Your task to perform on an android device: change alarm snooze length Image 0: 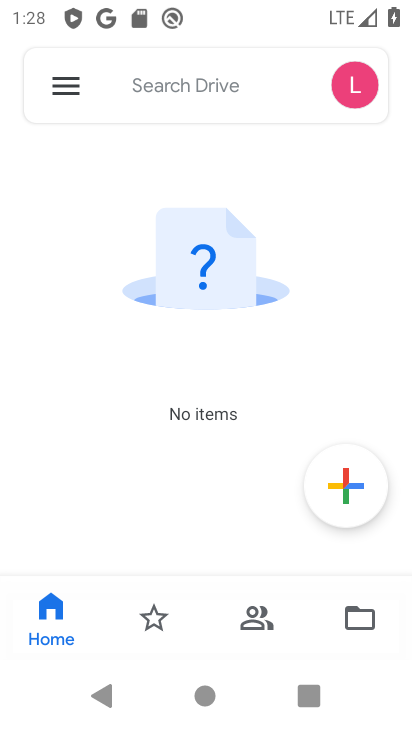
Step 0: press home button
Your task to perform on an android device: change alarm snooze length Image 1: 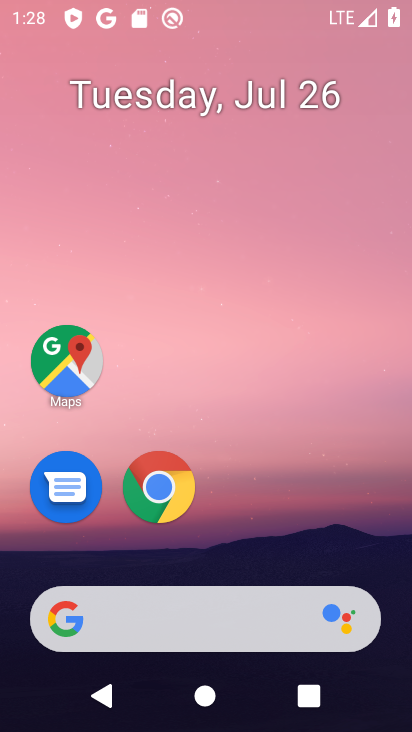
Step 1: drag from (233, 624) to (310, 41)
Your task to perform on an android device: change alarm snooze length Image 2: 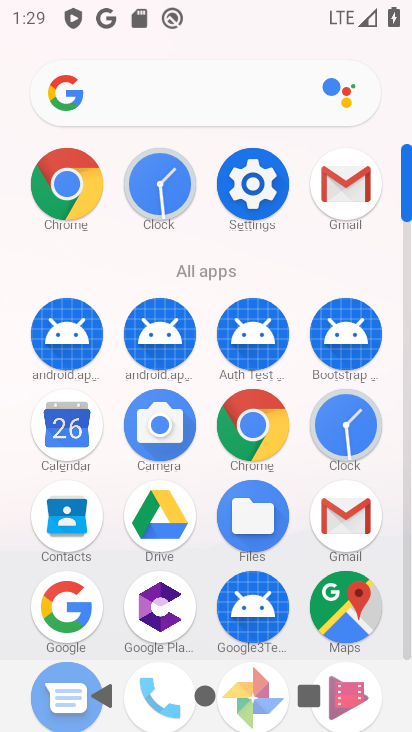
Step 2: click (337, 430)
Your task to perform on an android device: change alarm snooze length Image 3: 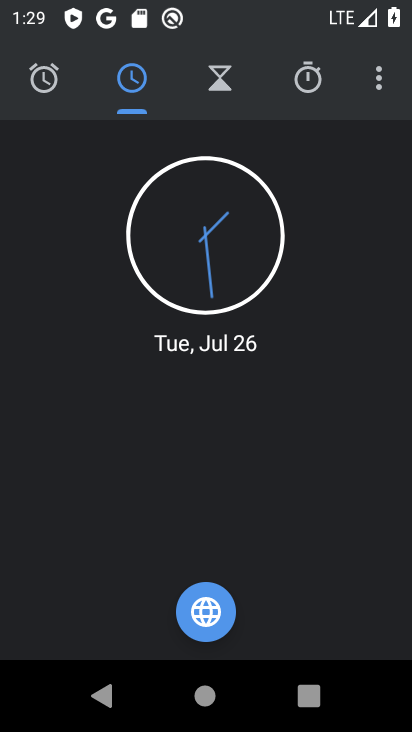
Step 3: click (395, 92)
Your task to perform on an android device: change alarm snooze length Image 4: 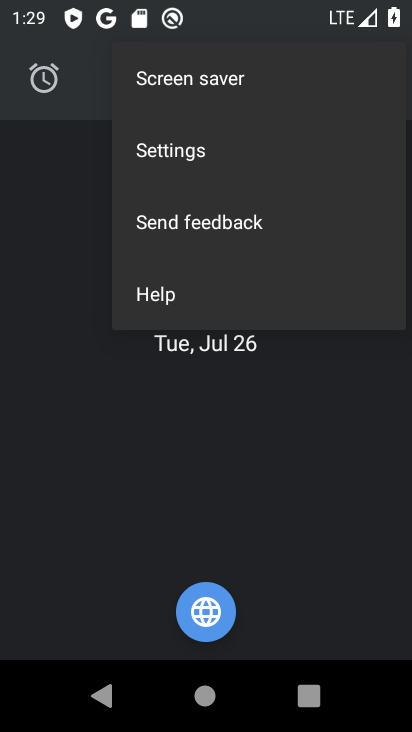
Step 4: click (183, 163)
Your task to perform on an android device: change alarm snooze length Image 5: 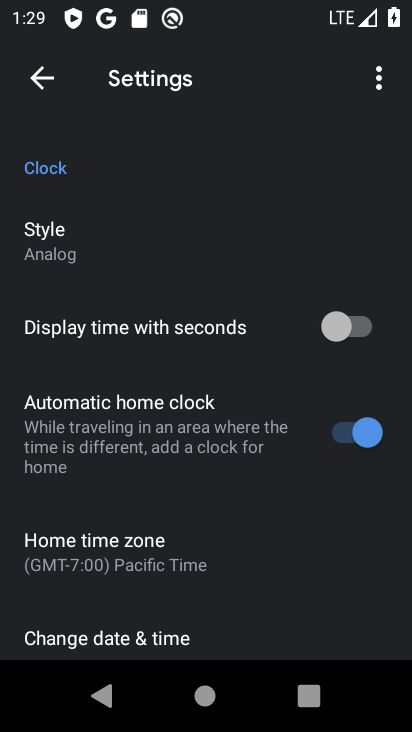
Step 5: drag from (184, 562) to (185, 268)
Your task to perform on an android device: change alarm snooze length Image 6: 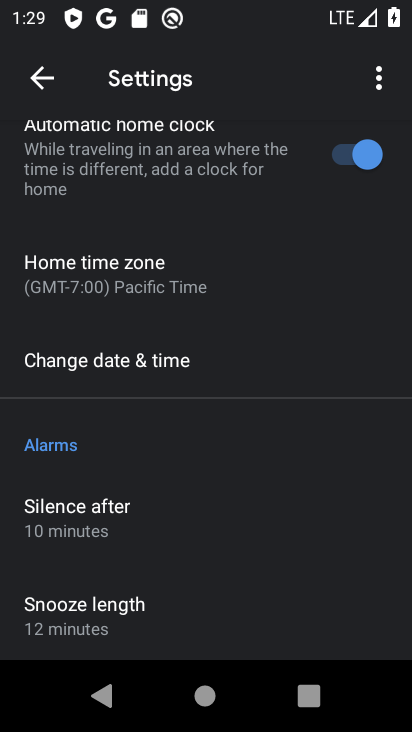
Step 6: click (132, 617)
Your task to perform on an android device: change alarm snooze length Image 7: 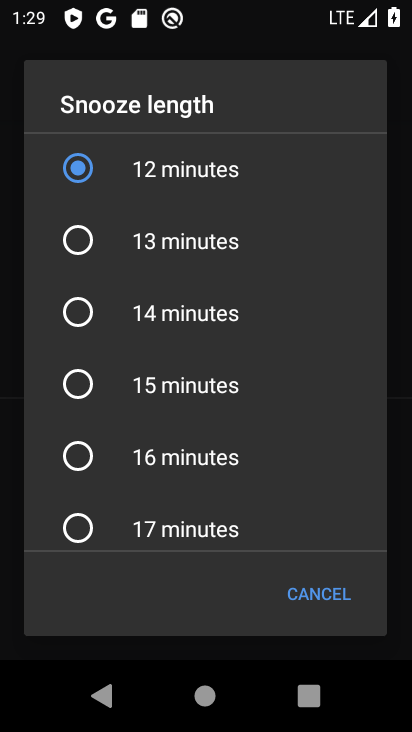
Step 7: drag from (132, 209) to (140, 555)
Your task to perform on an android device: change alarm snooze length Image 8: 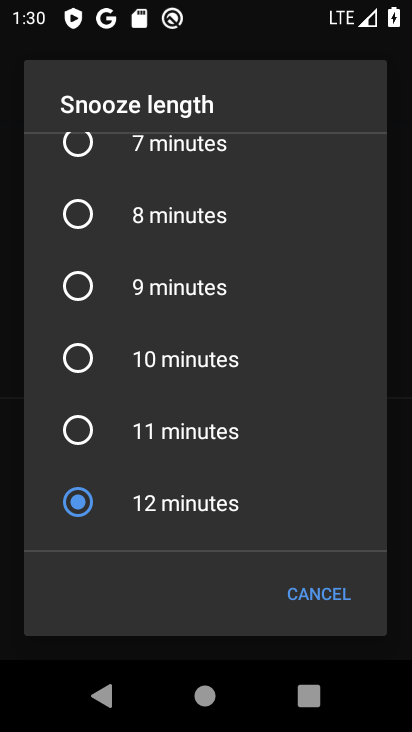
Step 8: click (79, 372)
Your task to perform on an android device: change alarm snooze length Image 9: 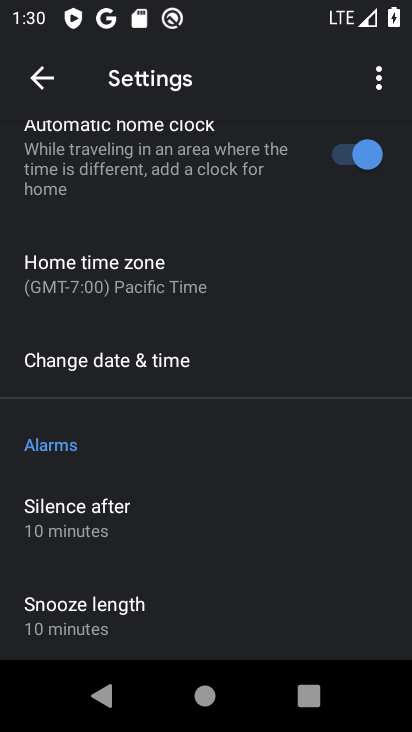
Step 9: task complete